Your task to perform on an android device: change your default location settings in chrome Image 0: 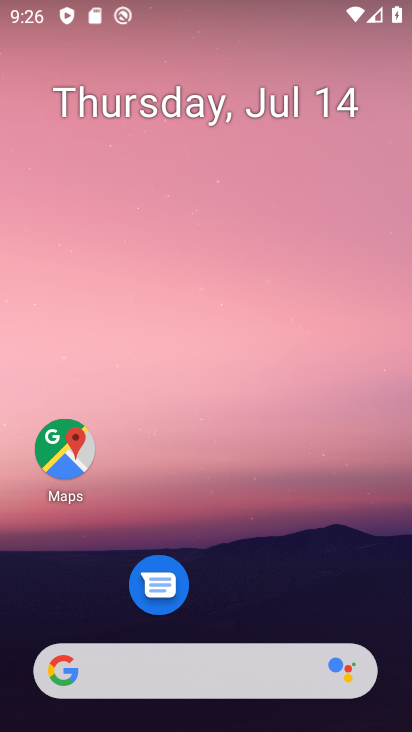
Step 0: drag from (210, 609) to (219, 280)
Your task to perform on an android device: change your default location settings in chrome Image 1: 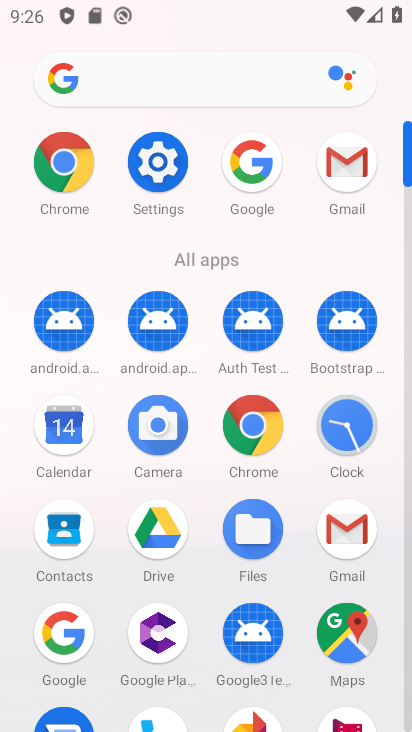
Step 1: click (71, 139)
Your task to perform on an android device: change your default location settings in chrome Image 2: 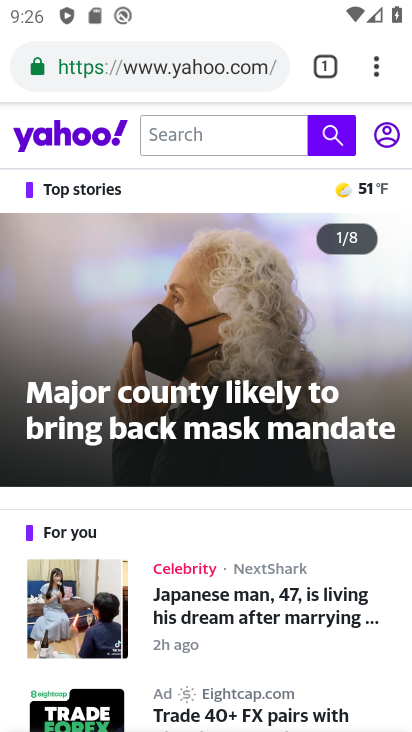
Step 2: click (358, 93)
Your task to perform on an android device: change your default location settings in chrome Image 3: 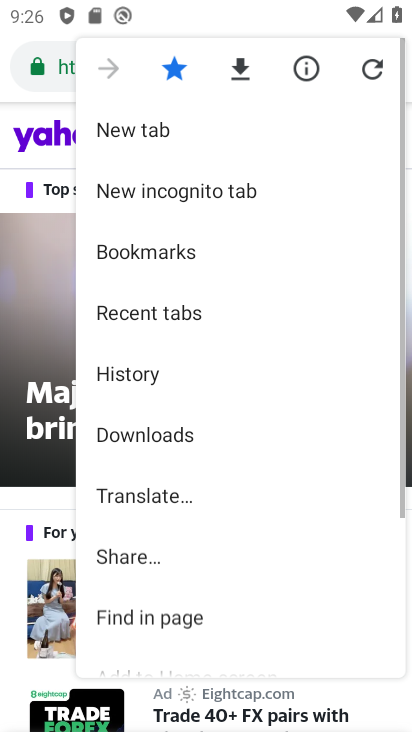
Step 3: click (376, 70)
Your task to perform on an android device: change your default location settings in chrome Image 4: 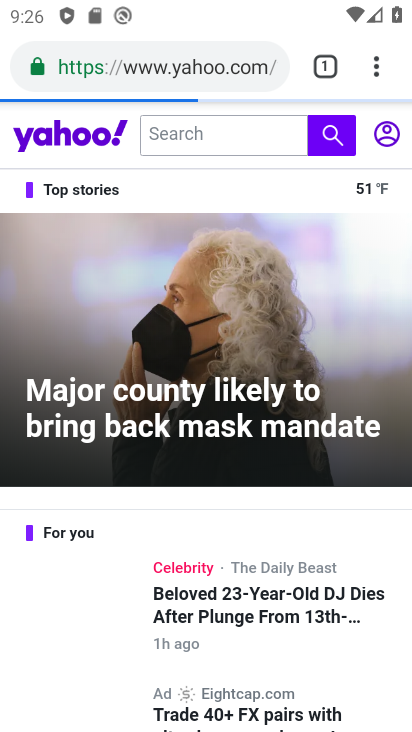
Step 4: click (376, 46)
Your task to perform on an android device: change your default location settings in chrome Image 5: 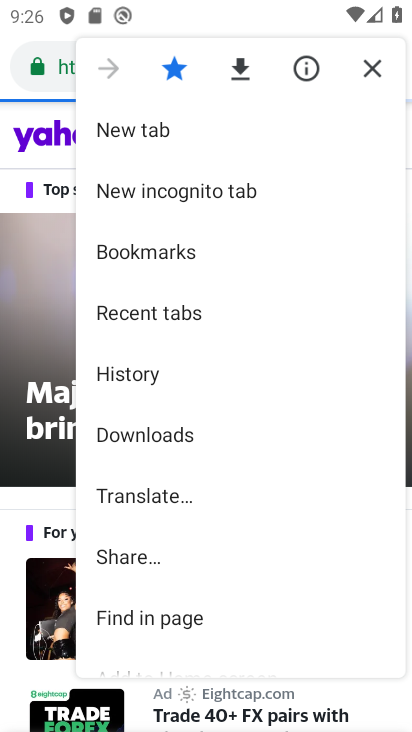
Step 5: drag from (145, 545) to (43, 132)
Your task to perform on an android device: change your default location settings in chrome Image 6: 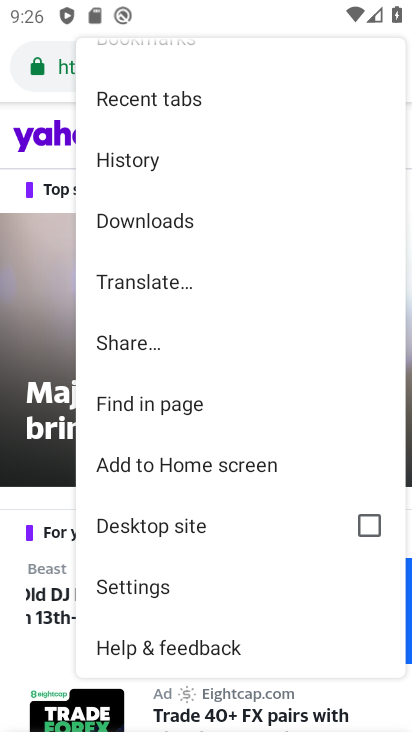
Step 6: click (161, 598)
Your task to perform on an android device: change your default location settings in chrome Image 7: 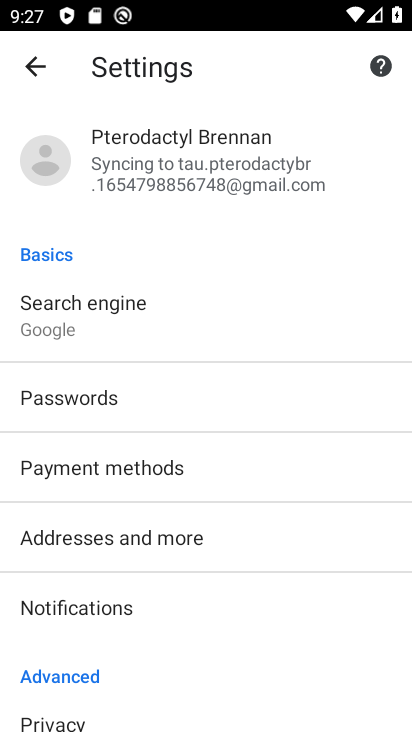
Step 7: drag from (161, 598) to (69, 261)
Your task to perform on an android device: change your default location settings in chrome Image 8: 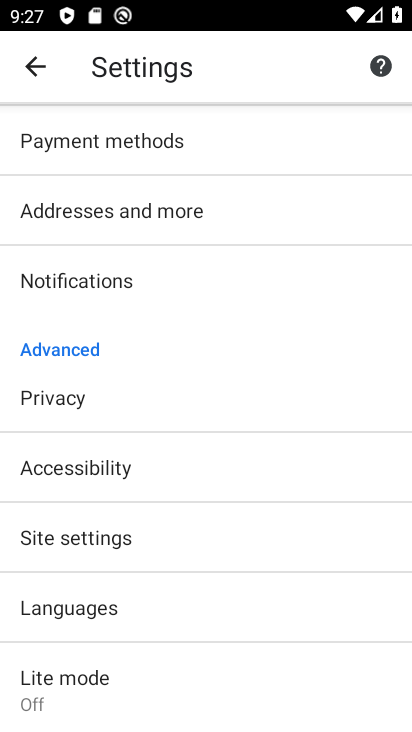
Step 8: click (107, 548)
Your task to perform on an android device: change your default location settings in chrome Image 9: 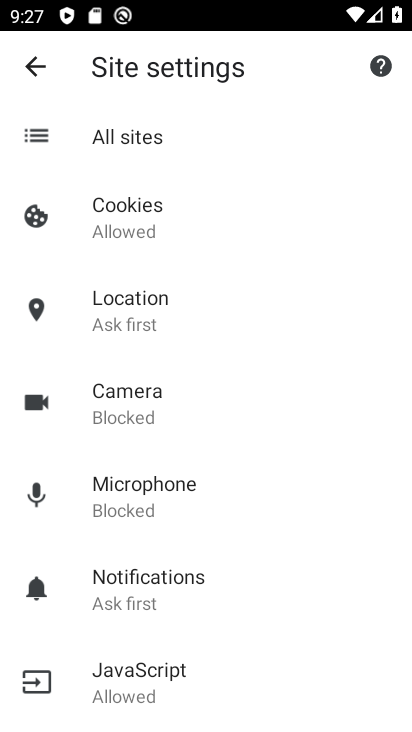
Step 9: click (114, 325)
Your task to perform on an android device: change your default location settings in chrome Image 10: 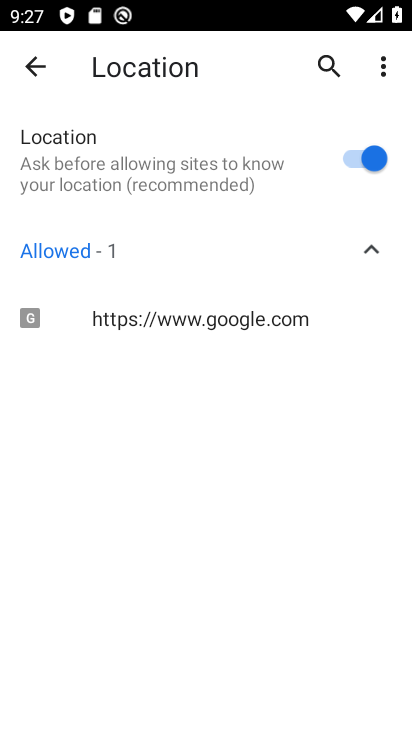
Step 10: click (358, 165)
Your task to perform on an android device: change your default location settings in chrome Image 11: 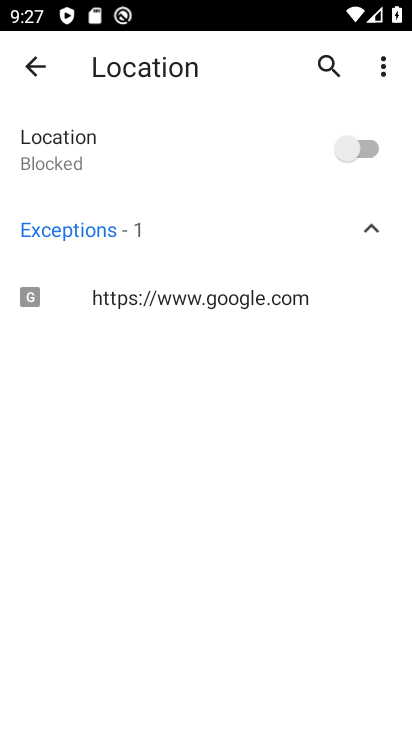
Step 11: task complete